Your task to perform on an android device: turn pop-ups on in chrome Image 0: 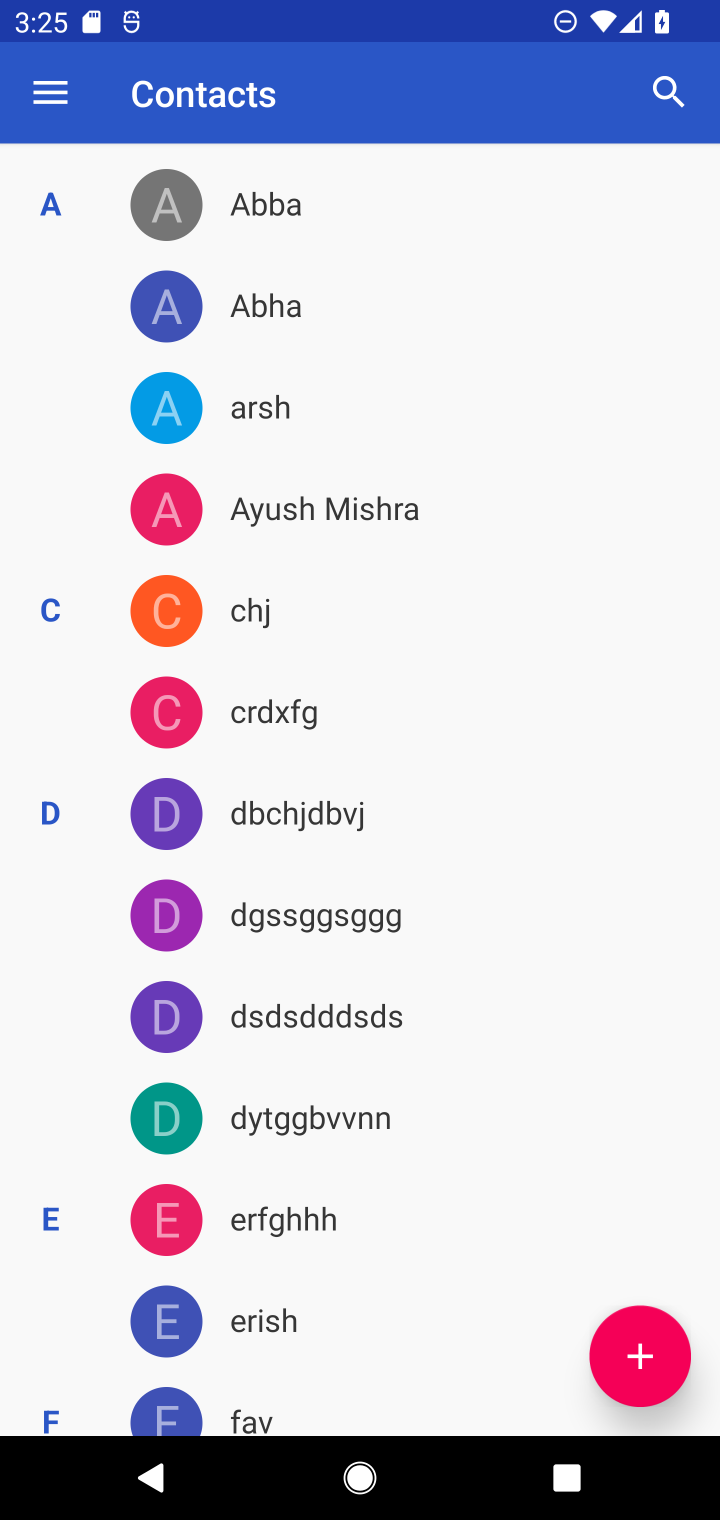
Step 0: press home button
Your task to perform on an android device: turn pop-ups on in chrome Image 1: 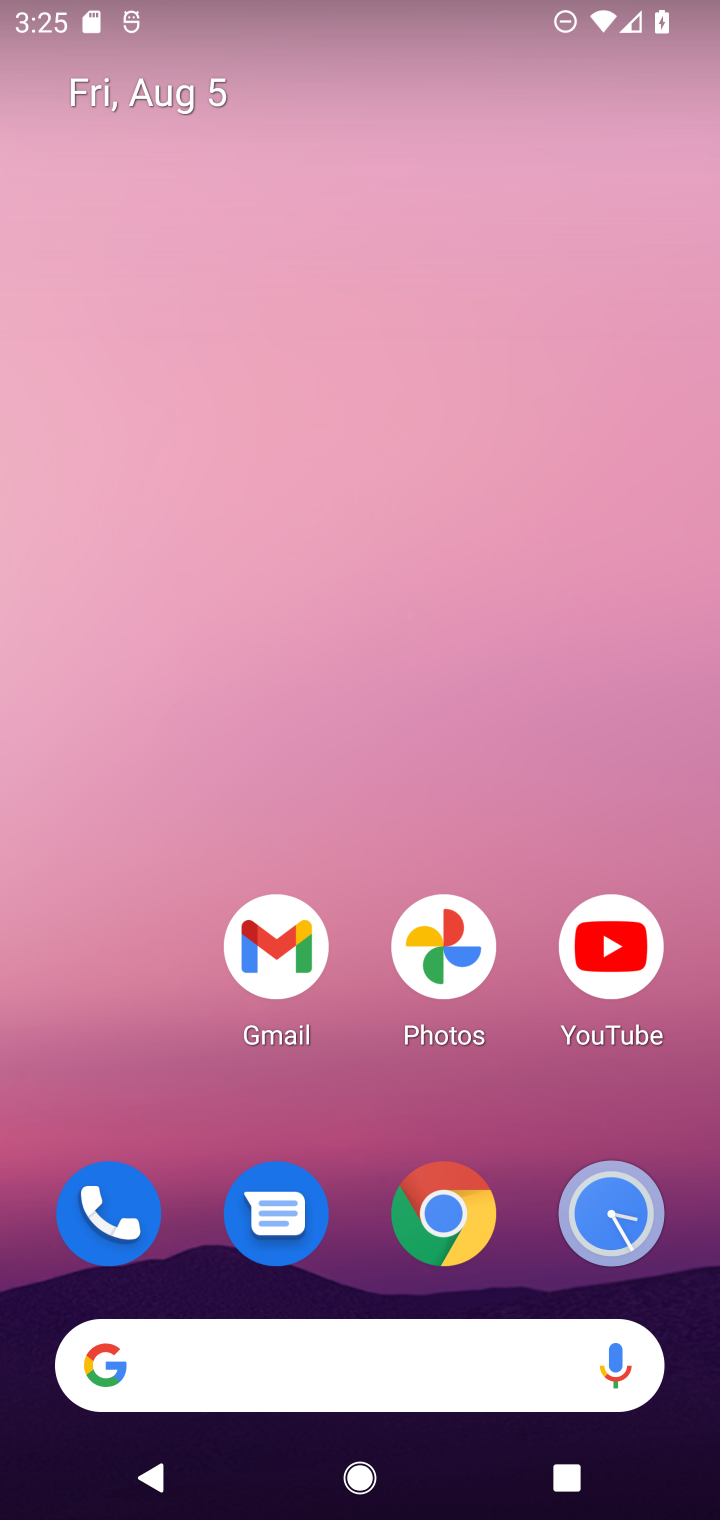
Step 1: click (436, 1210)
Your task to perform on an android device: turn pop-ups on in chrome Image 2: 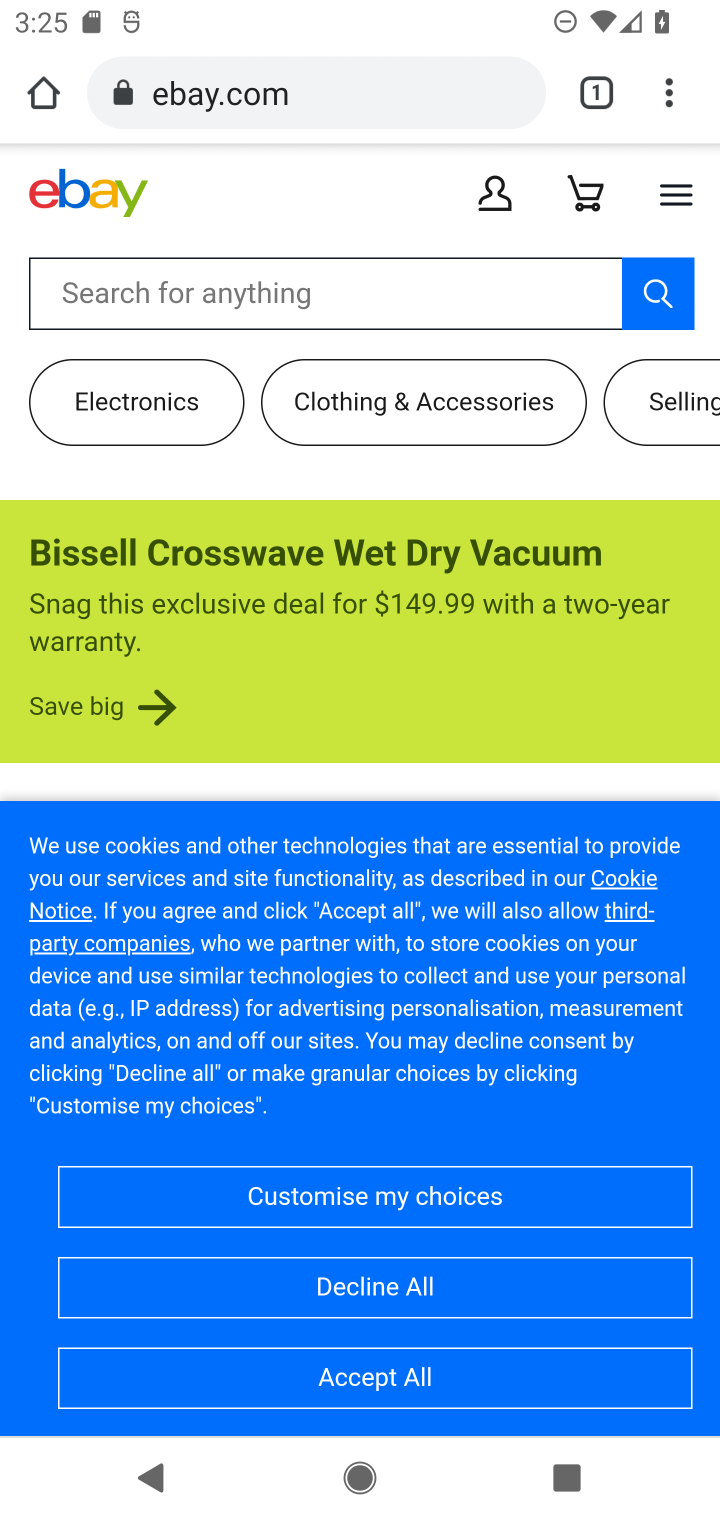
Step 2: click (661, 79)
Your task to perform on an android device: turn pop-ups on in chrome Image 3: 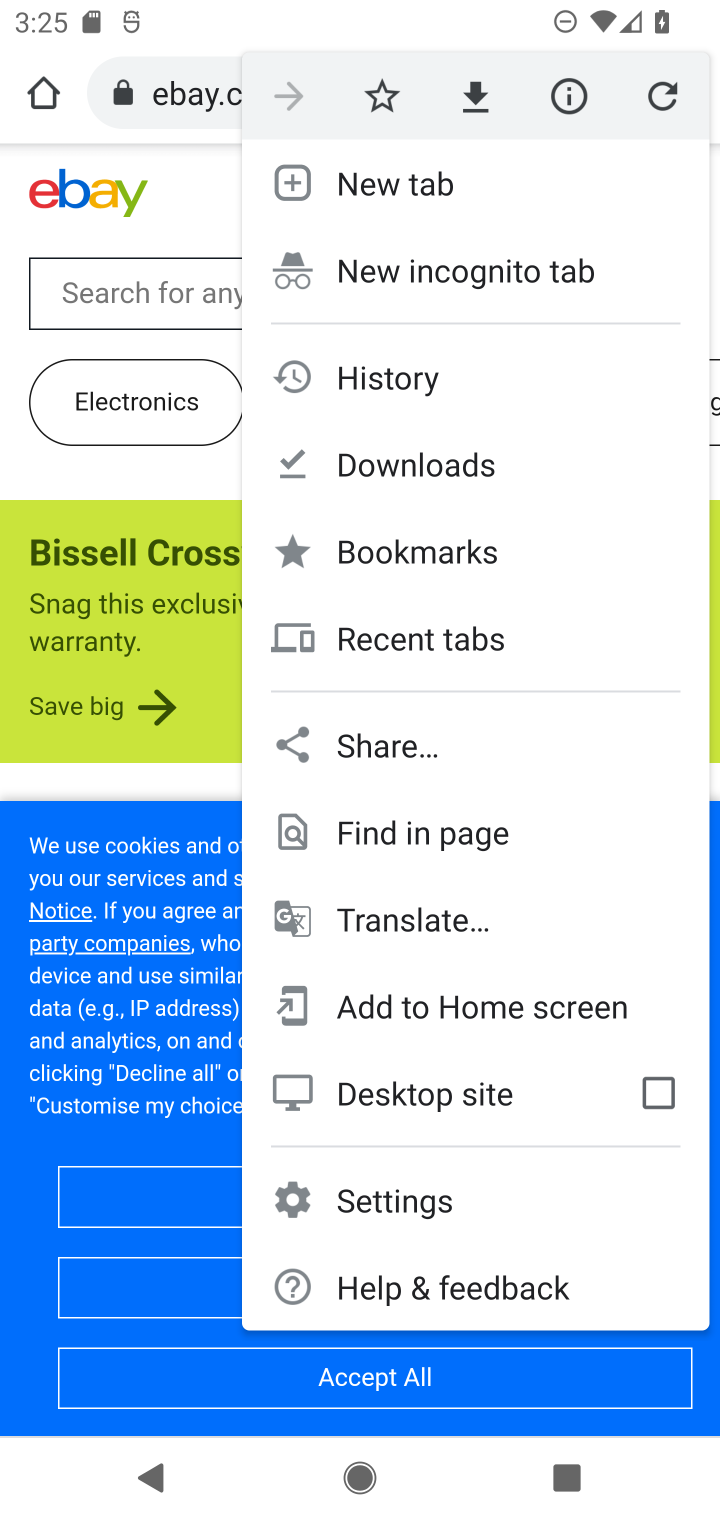
Step 3: click (392, 1191)
Your task to perform on an android device: turn pop-ups on in chrome Image 4: 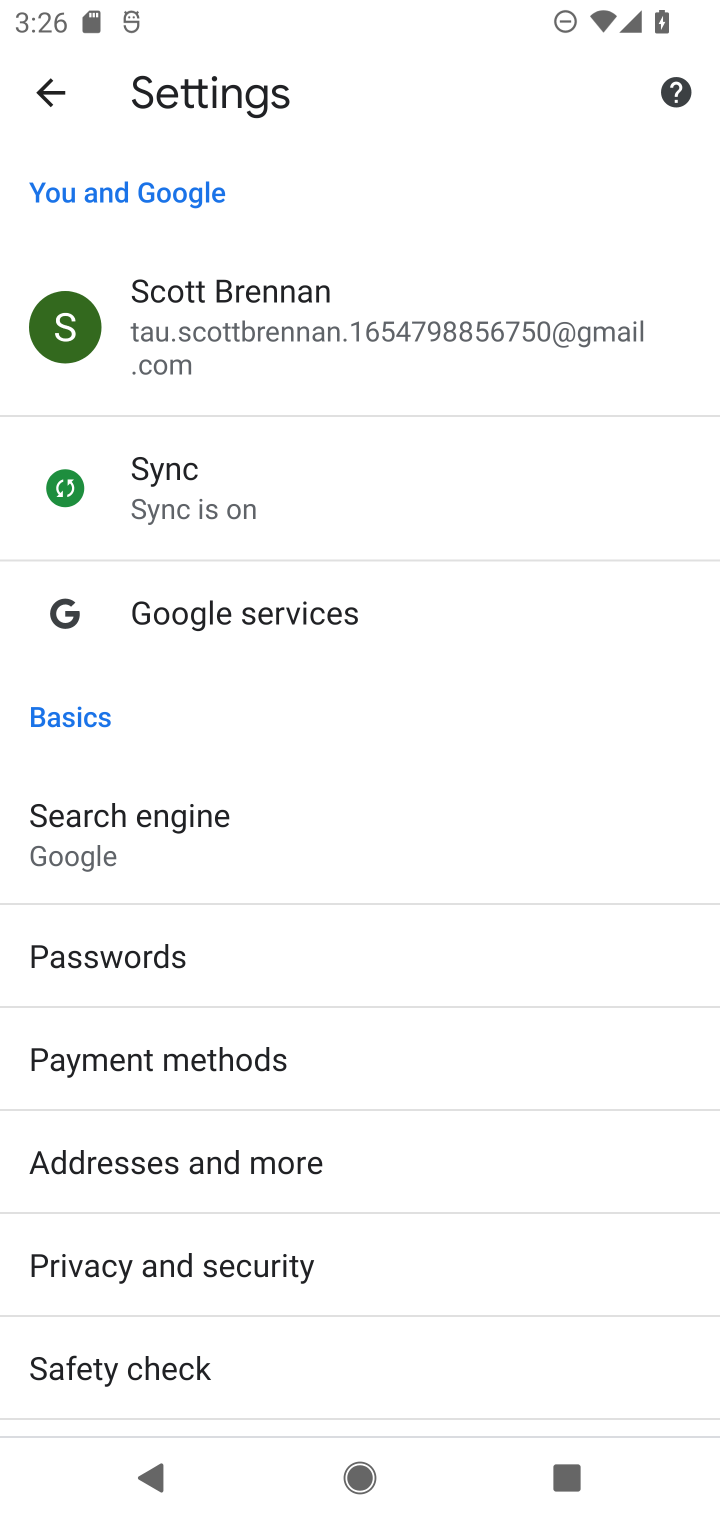
Step 4: drag from (524, 1106) to (517, 1)
Your task to perform on an android device: turn pop-ups on in chrome Image 5: 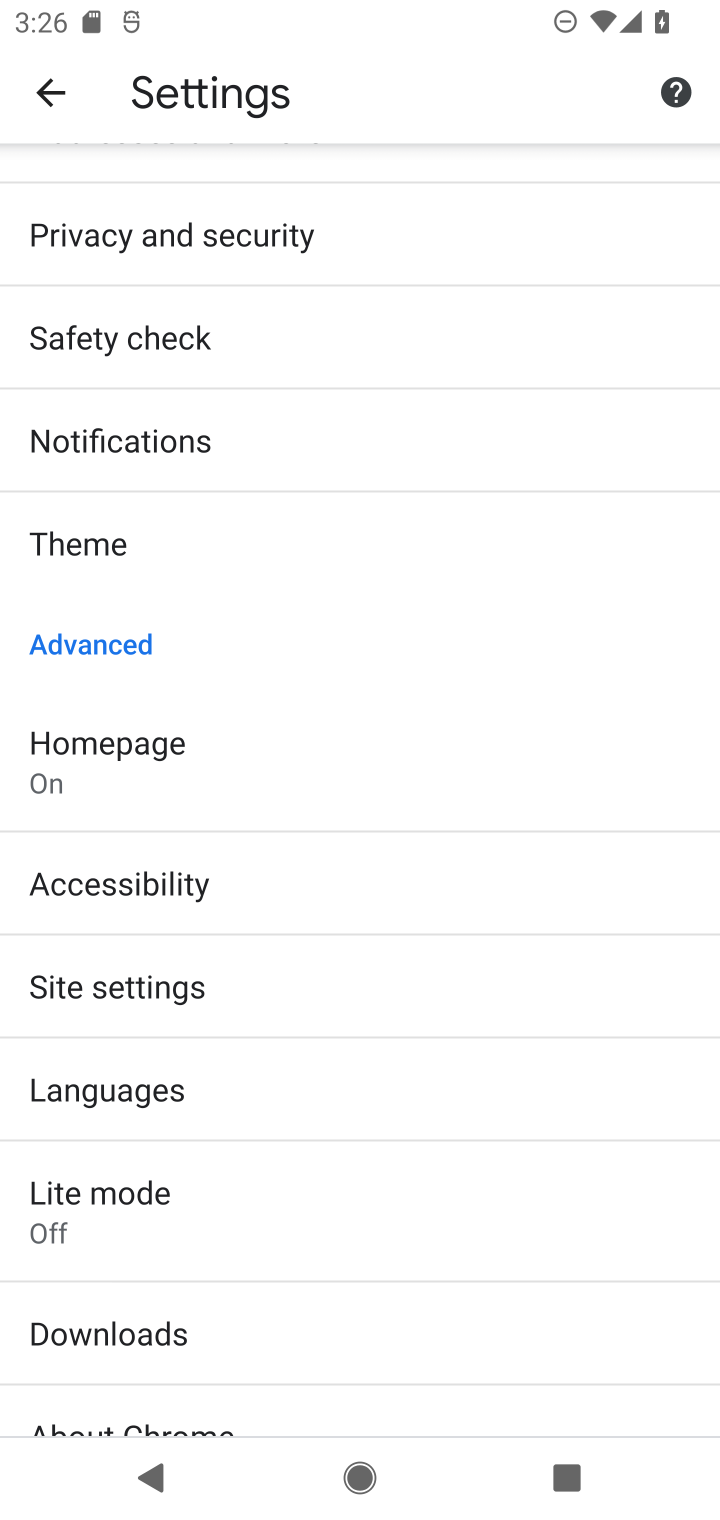
Step 5: click (135, 997)
Your task to perform on an android device: turn pop-ups on in chrome Image 6: 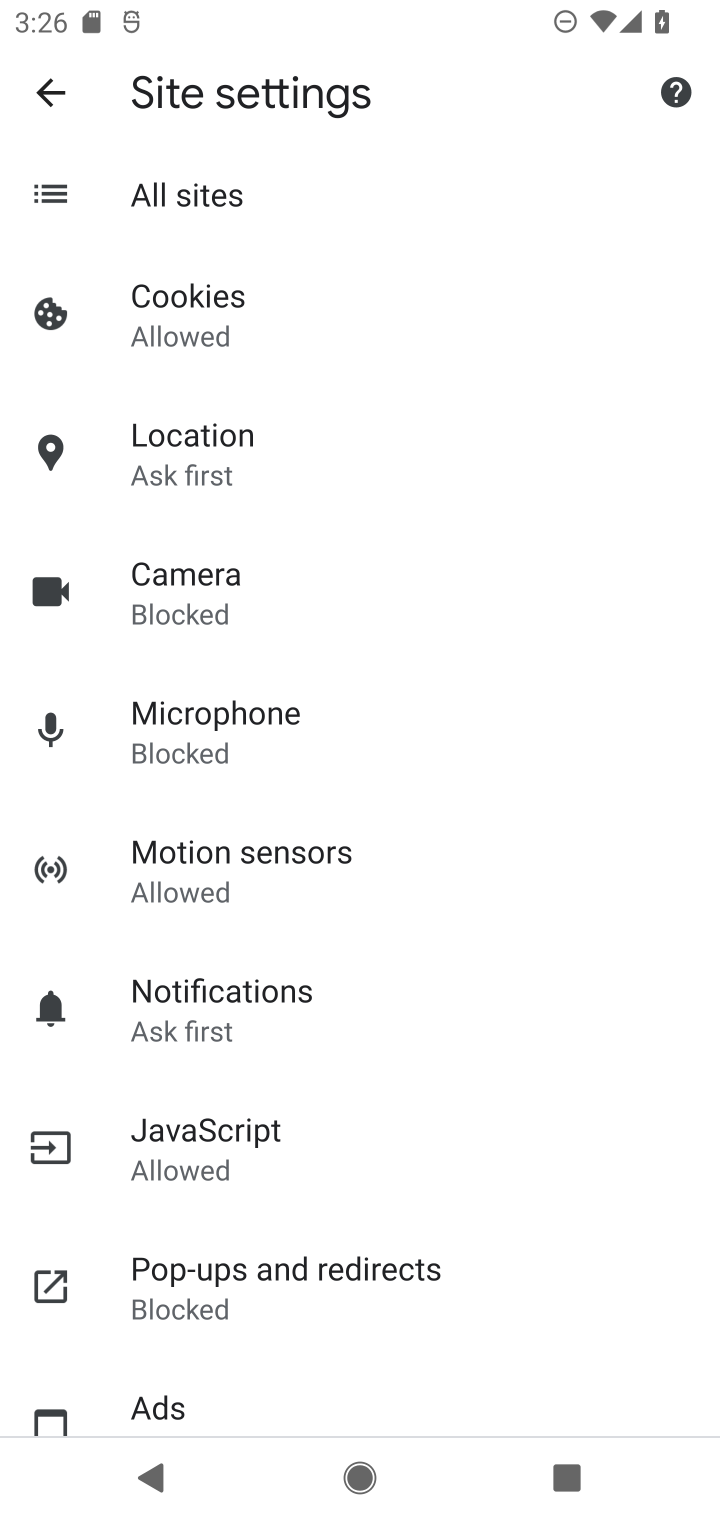
Step 6: click (253, 1269)
Your task to perform on an android device: turn pop-ups on in chrome Image 7: 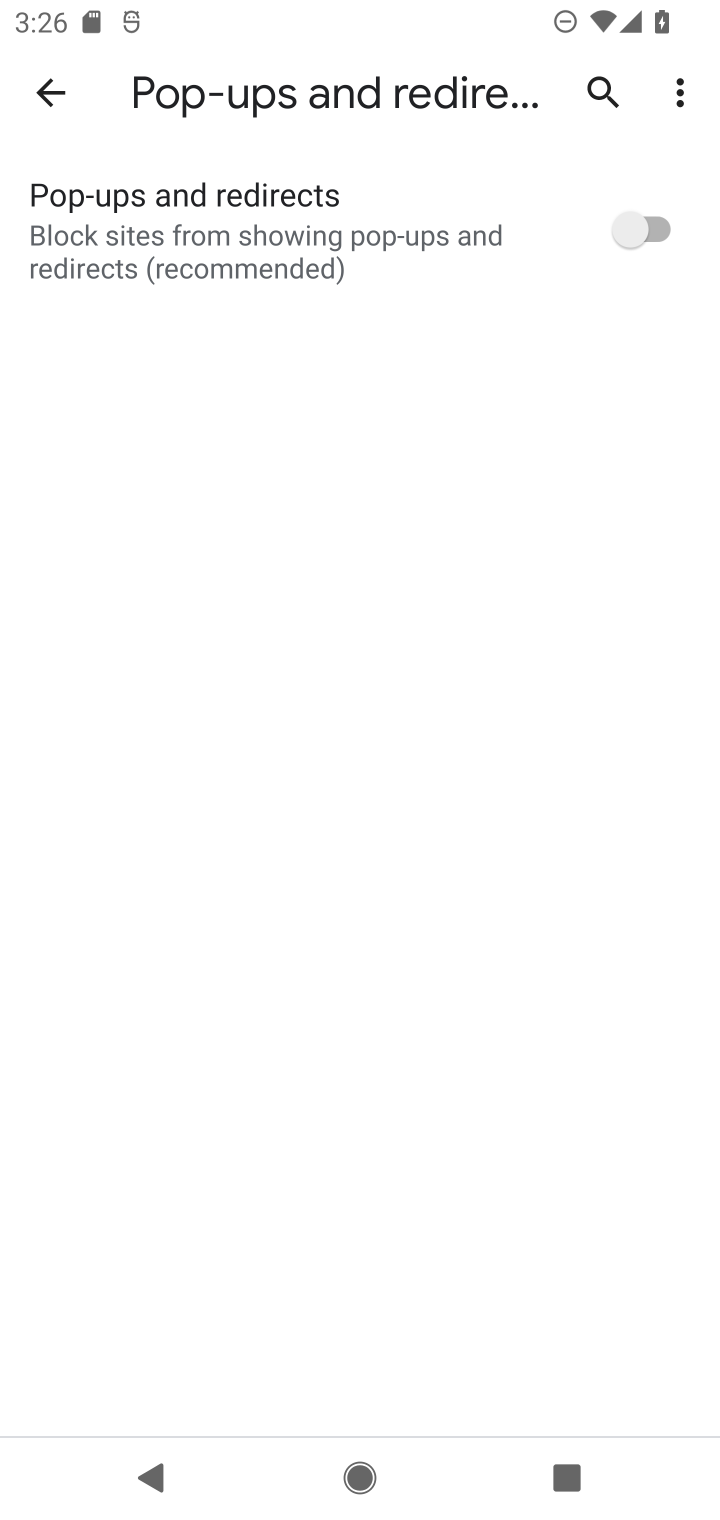
Step 7: click (645, 206)
Your task to perform on an android device: turn pop-ups on in chrome Image 8: 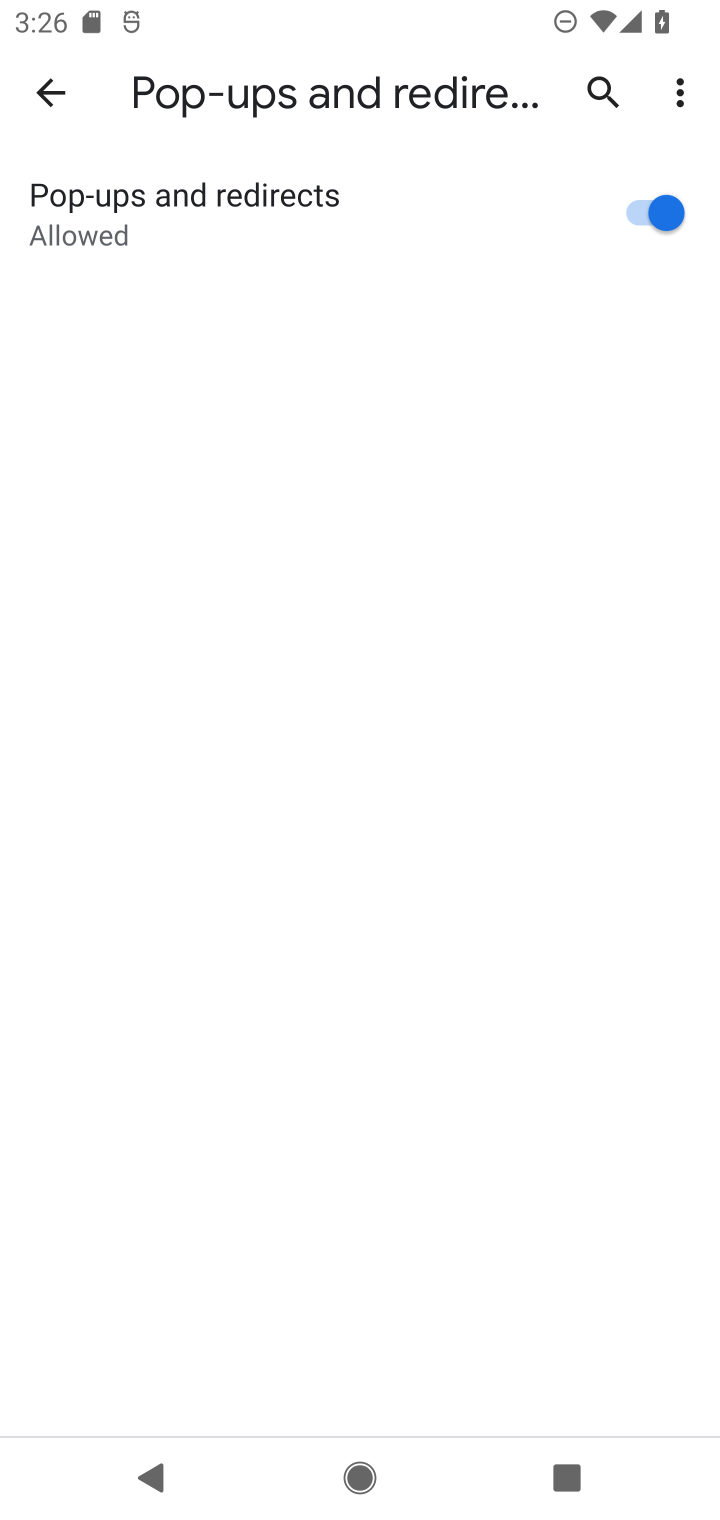
Step 8: task complete